Your task to perform on an android device: remove spam from my inbox in the gmail app Image 0: 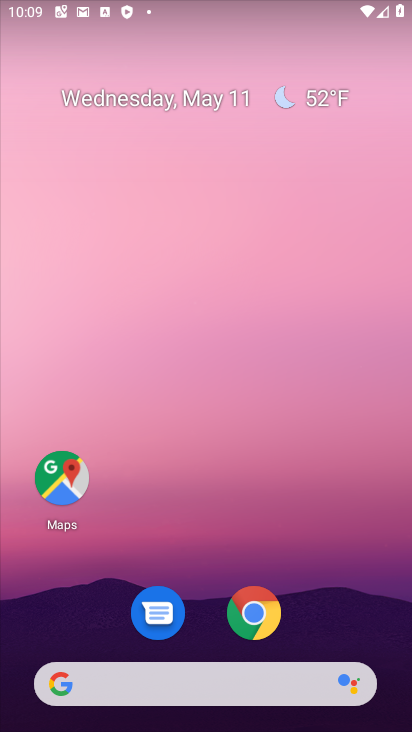
Step 0: drag from (243, 547) to (235, 167)
Your task to perform on an android device: remove spam from my inbox in the gmail app Image 1: 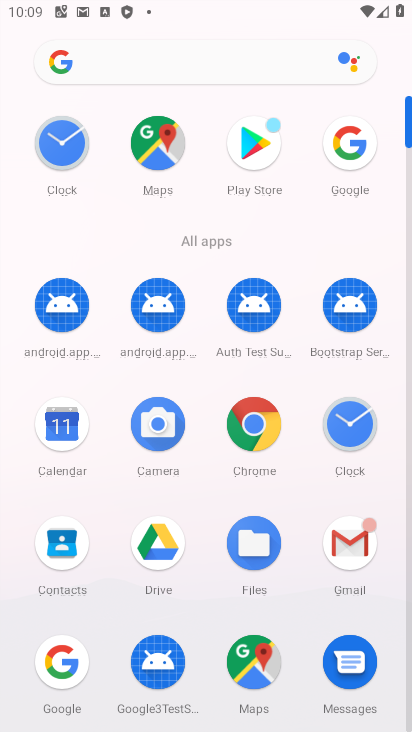
Step 1: click (364, 553)
Your task to perform on an android device: remove spam from my inbox in the gmail app Image 2: 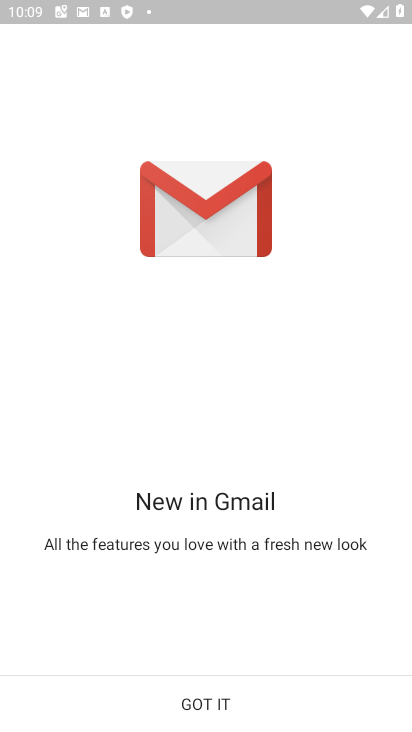
Step 2: click (213, 712)
Your task to perform on an android device: remove spam from my inbox in the gmail app Image 3: 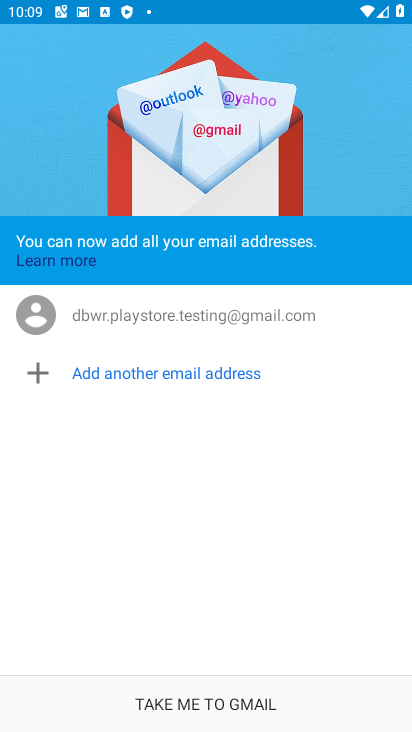
Step 3: click (213, 712)
Your task to perform on an android device: remove spam from my inbox in the gmail app Image 4: 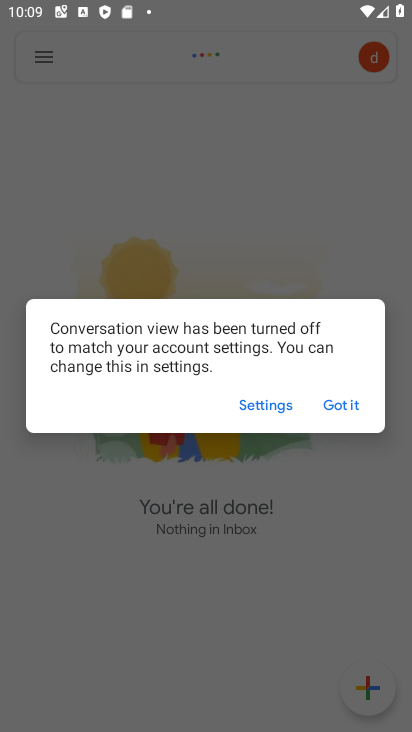
Step 4: click (334, 401)
Your task to perform on an android device: remove spam from my inbox in the gmail app Image 5: 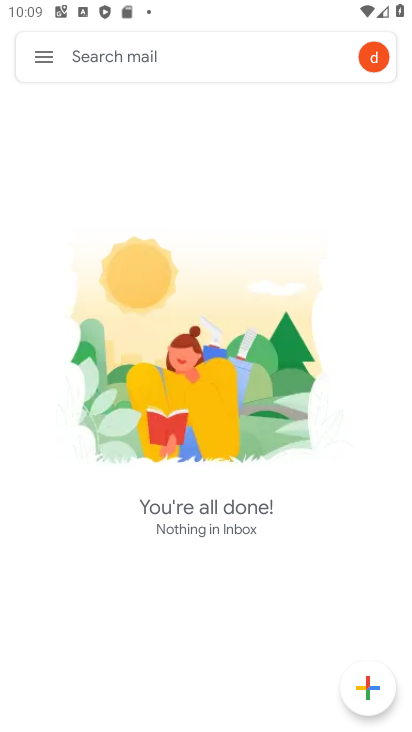
Step 5: click (51, 72)
Your task to perform on an android device: remove spam from my inbox in the gmail app Image 6: 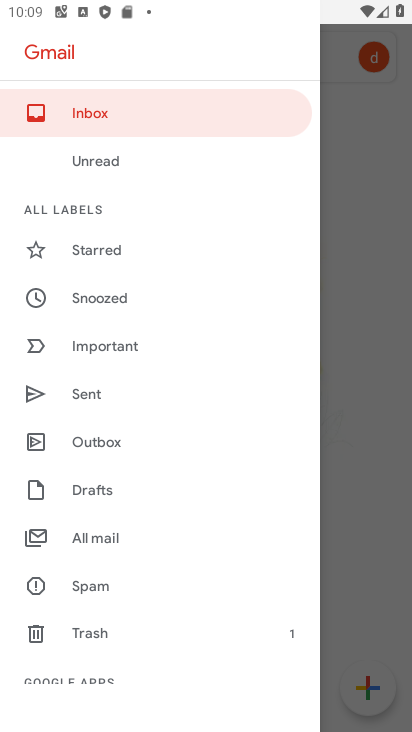
Step 6: click (129, 593)
Your task to perform on an android device: remove spam from my inbox in the gmail app Image 7: 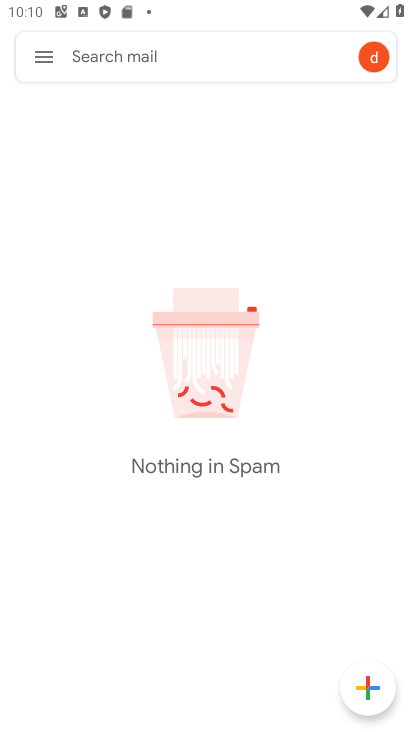
Step 7: task complete